Your task to perform on an android device: Show the shopping cart on ebay. Add amazon basics triple a to the cart on ebay, then select checkout. Image 0: 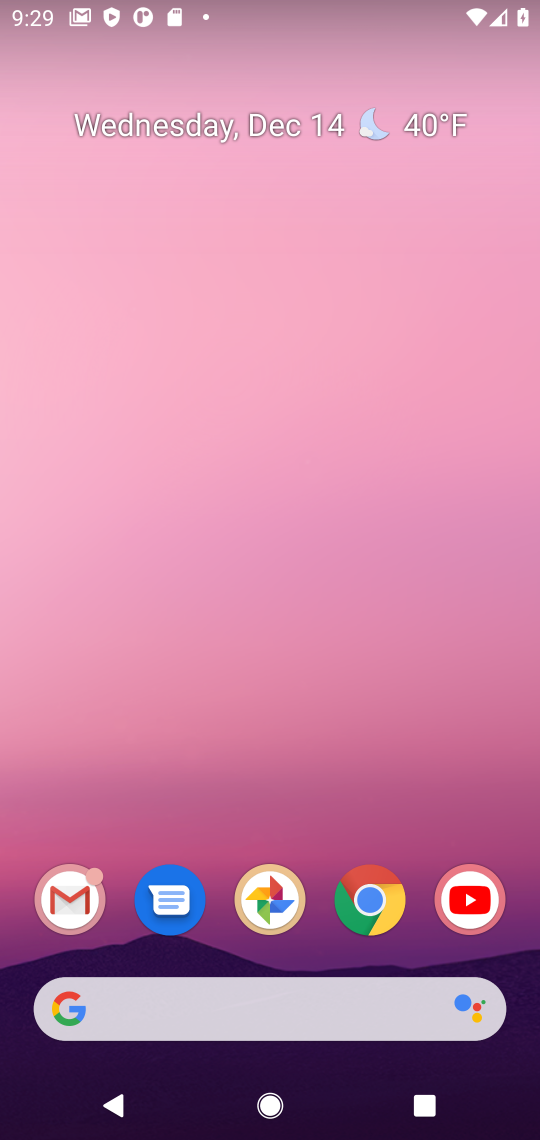
Step 0: click (379, 915)
Your task to perform on an android device: Show the shopping cart on ebay. Add amazon basics triple a to the cart on ebay, then select checkout. Image 1: 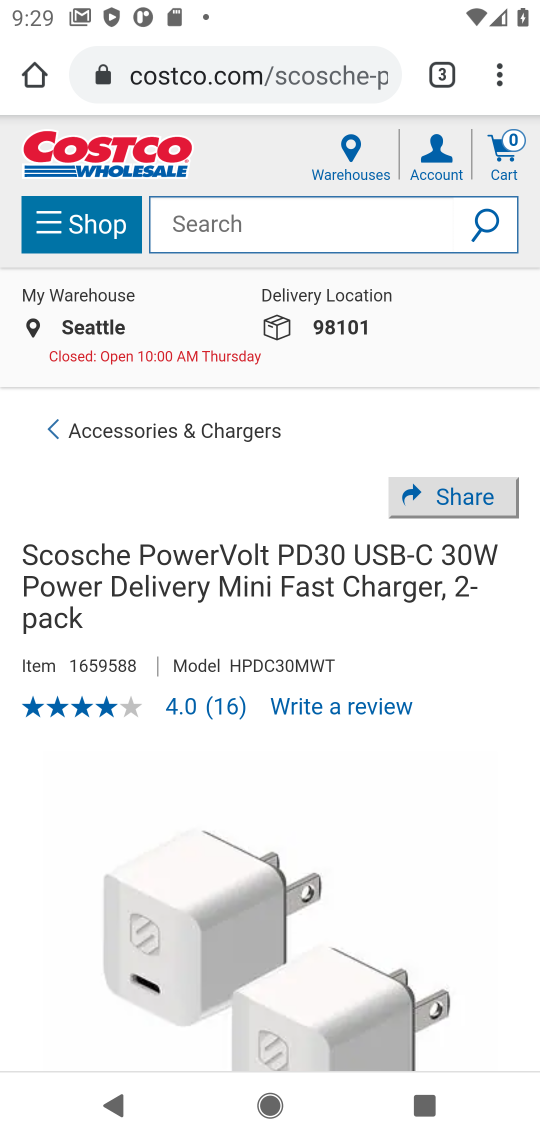
Step 1: click (231, 82)
Your task to perform on an android device: Show the shopping cart on ebay. Add amazon basics triple a to the cart on ebay, then select checkout. Image 2: 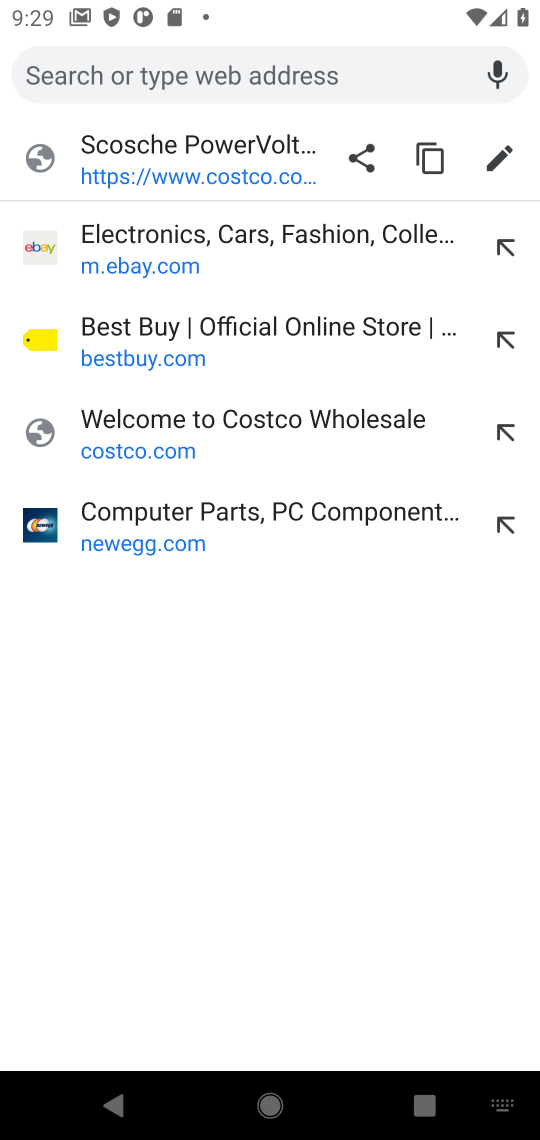
Step 2: click (146, 257)
Your task to perform on an android device: Show the shopping cart on ebay. Add amazon basics triple a to the cart on ebay, then select checkout. Image 3: 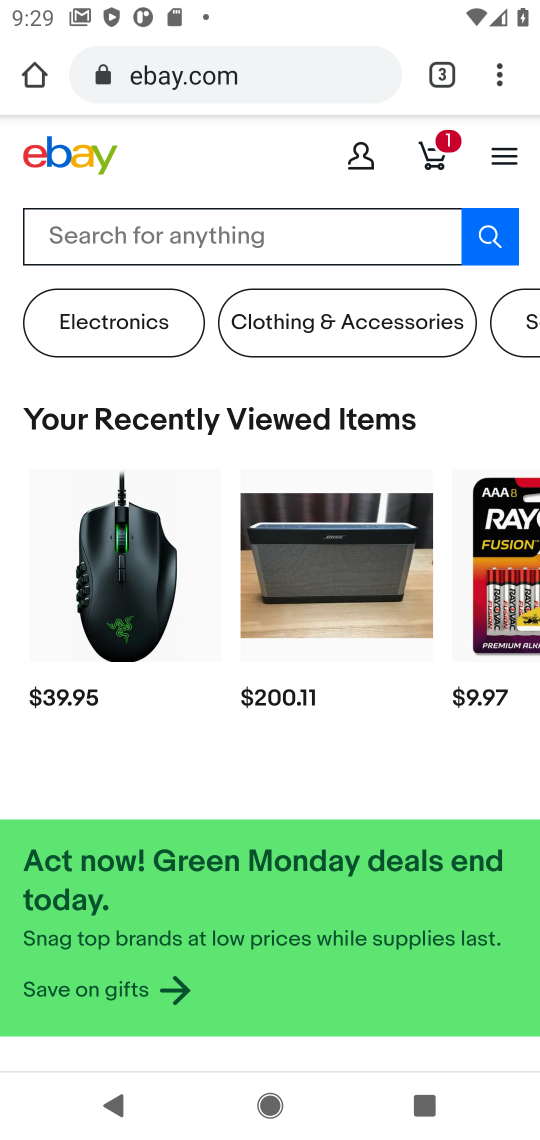
Step 3: click (432, 164)
Your task to perform on an android device: Show the shopping cart on ebay. Add amazon basics triple a to the cart on ebay, then select checkout. Image 4: 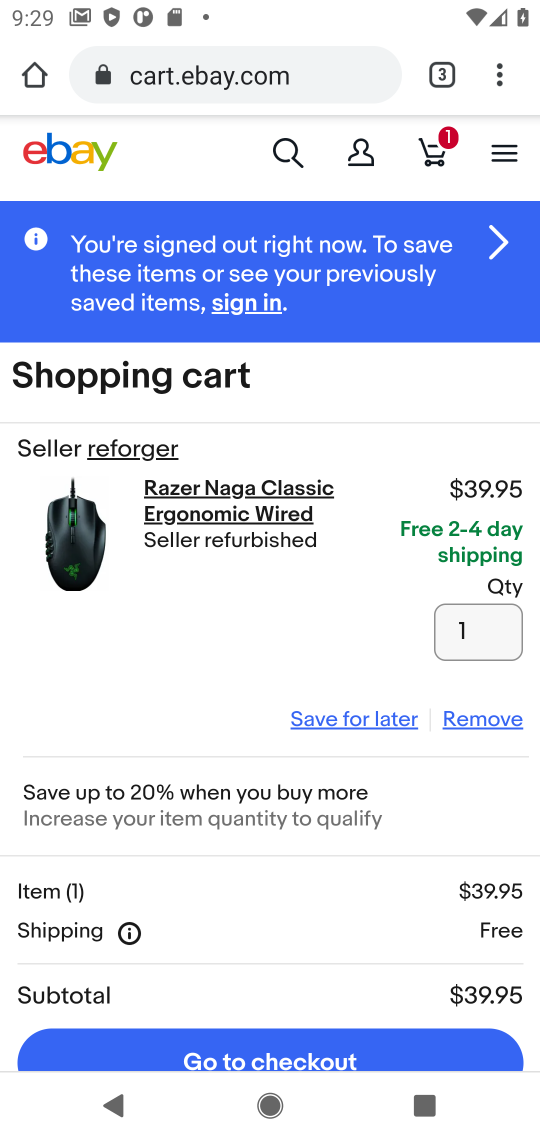
Step 4: click (274, 160)
Your task to perform on an android device: Show the shopping cart on ebay. Add amazon basics triple a to the cart on ebay, then select checkout. Image 5: 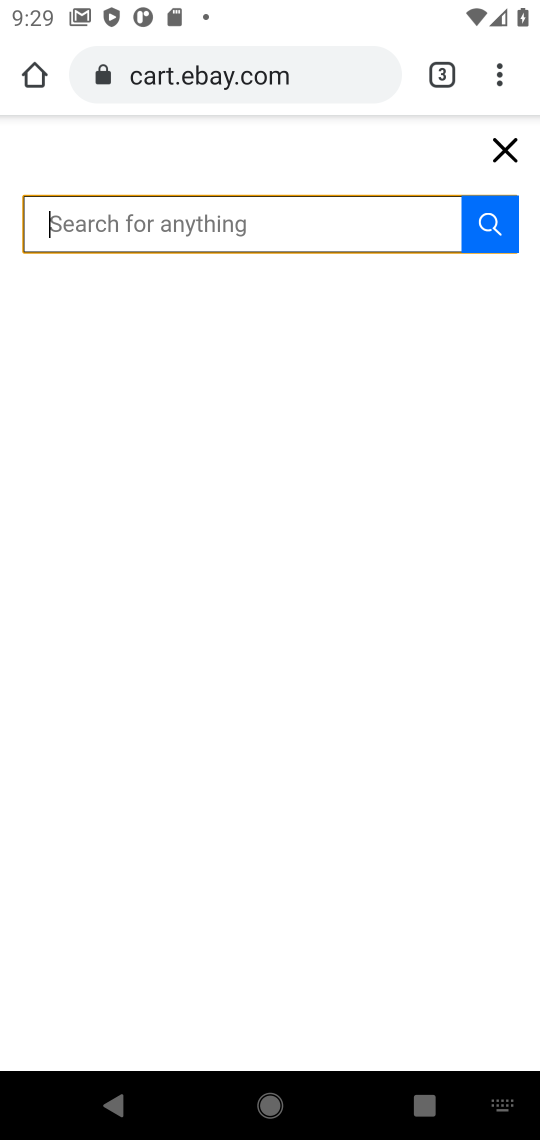
Step 5: type "amazon basics triple a"
Your task to perform on an android device: Show the shopping cart on ebay. Add amazon basics triple a to the cart on ebay, then select checkout. Image 6: 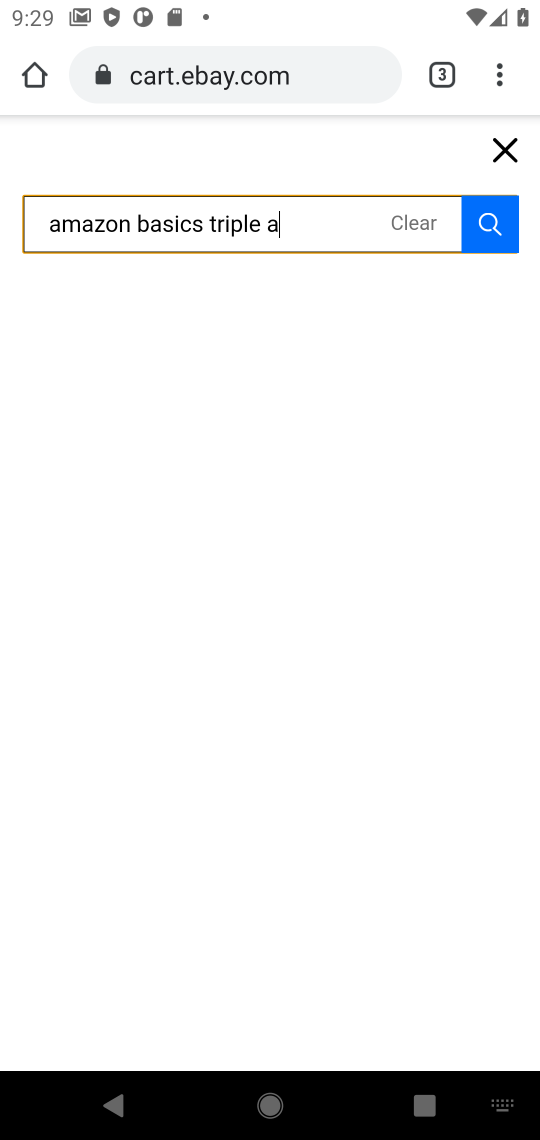
Step 6: click (484, 229)
Your task to perform on an android device: Show the shopping cart on ebay. Add amazon basics triple a to the cart on ebay, then select checkout. Image 7: 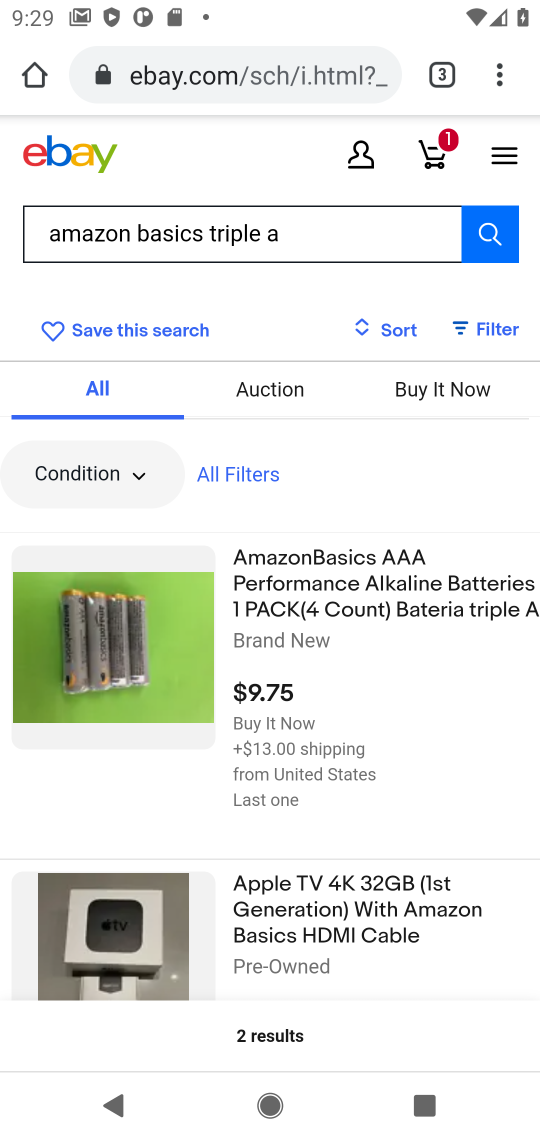
Step 7: click (317, 588)
Your task to perform on an android device: Show the shopping cart on ebay. Add amazon basics triple a to the cart on ebay, then select checkout. Image 8: 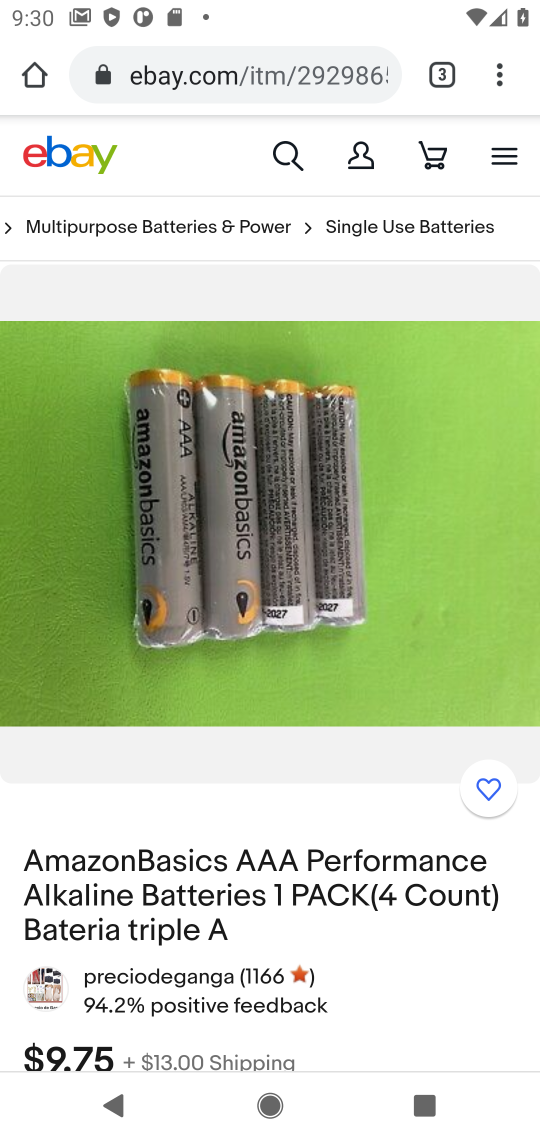
Step 8: drag from (236, 861) to (255, 374)
Your task to perform on an android device: Show the shopping cart on ebay. Add amazon basics triple a to the cart on ebay, then select checkout. Image 9: 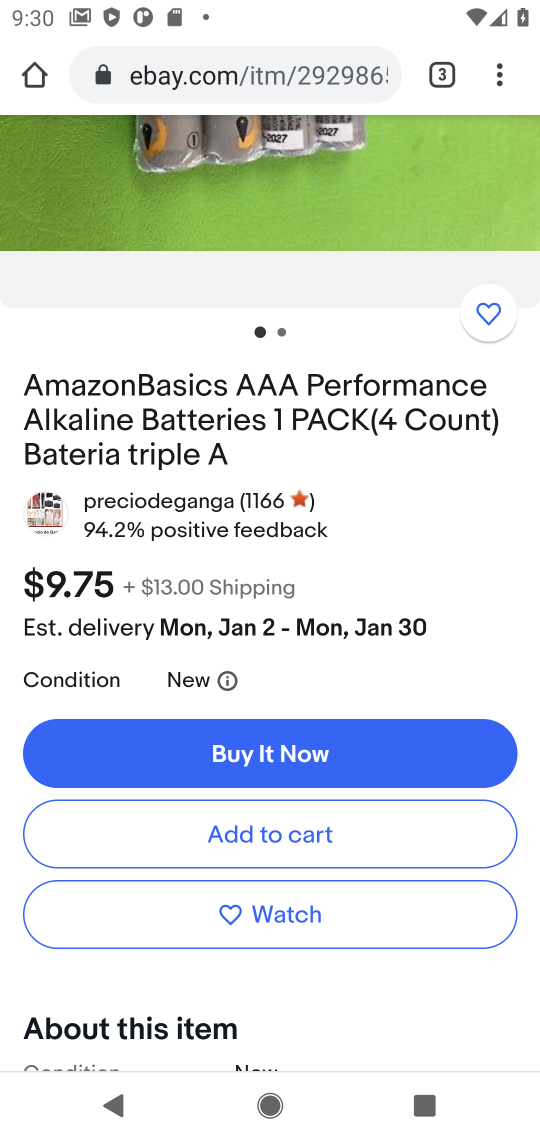
Step 9: click (239, 823)
Your task to perform on an android device: Show the shopping cart on ebay. Add amazon basics triple a to the cart on ebay, then select checkout. Image 10: 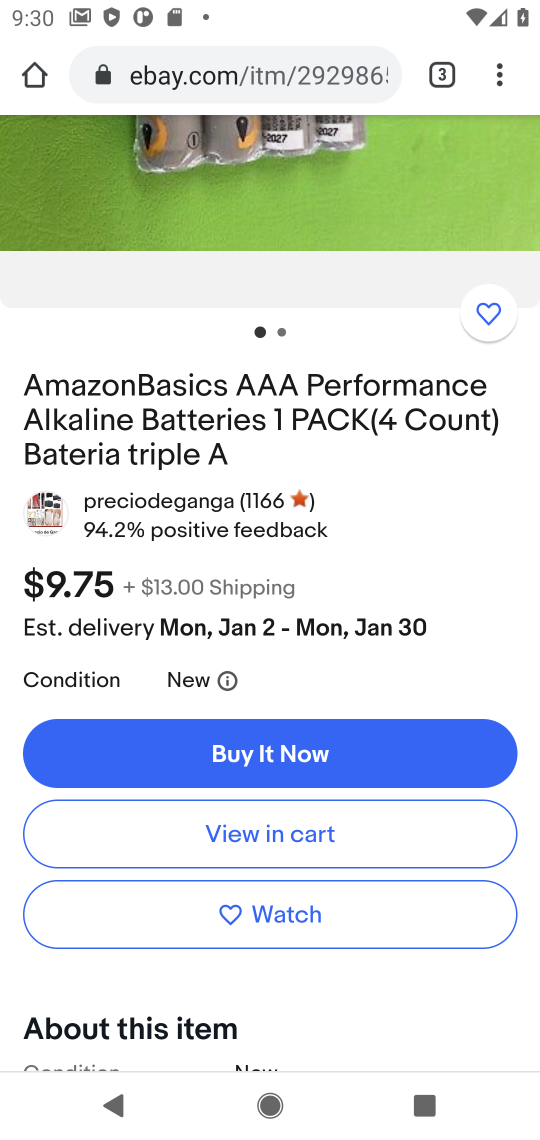
Step 10: click (239, 823)
Your task to perform on an android device: Show the shopping cart on ebay. Add amazon basics triple a to the cart on ebay, then select checkout. Image 11: 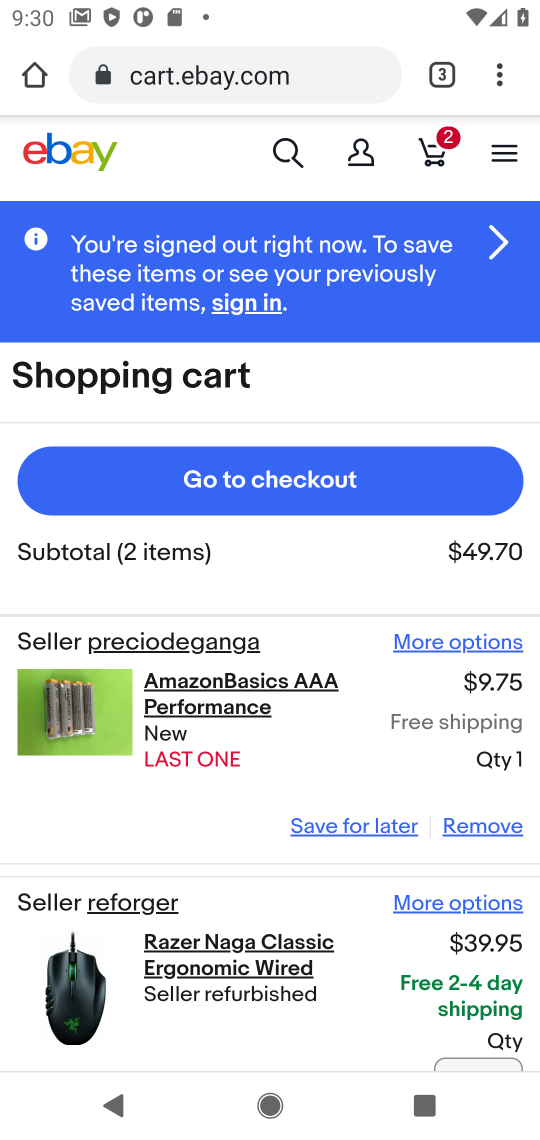
Step 11: click (318, 492)
Your task to perform on an android device: Show the shopping cart on ebay. Add amazon basics triple a to the cart on ebay, then select checkout. Image 12: 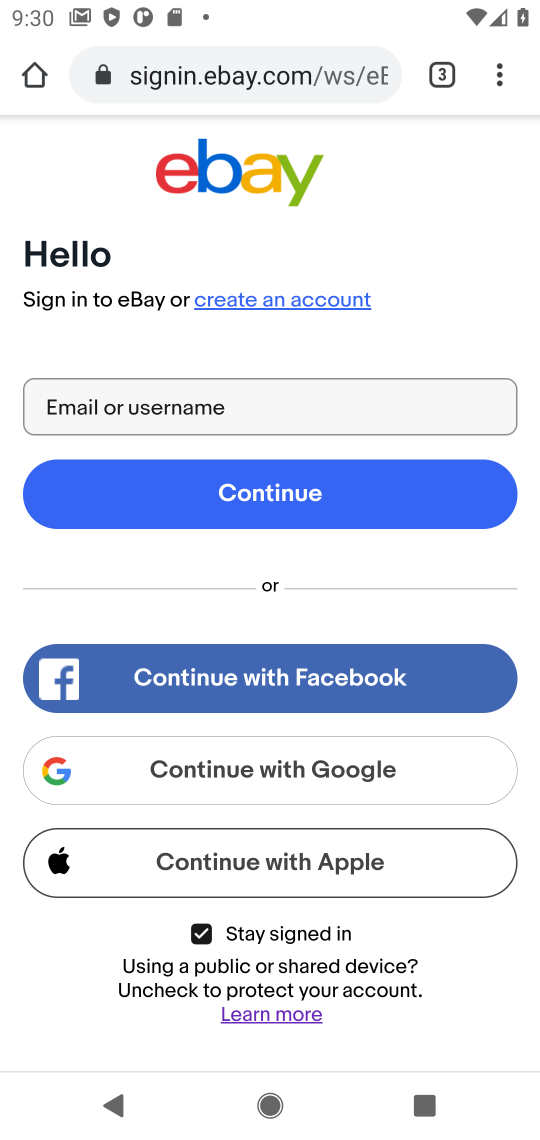
Step 12: task complete